Your task to perform on an android device: Go to Google Image 0: 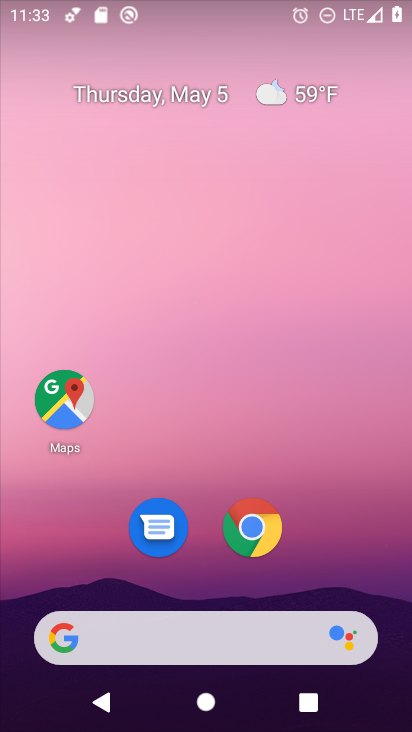
Step 0: drag from (271, 699) to (216, 12)
Your task to perform on an android device: Go to Google Image 1: 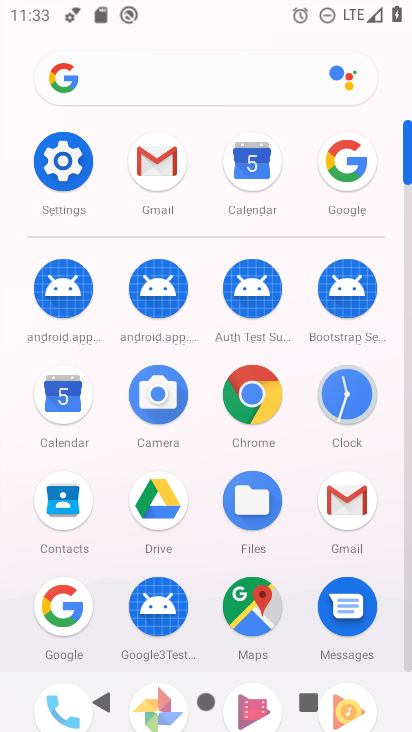
Step 1: click (65, 612)
Your task to perform on an android device: Go to Google Image 2: 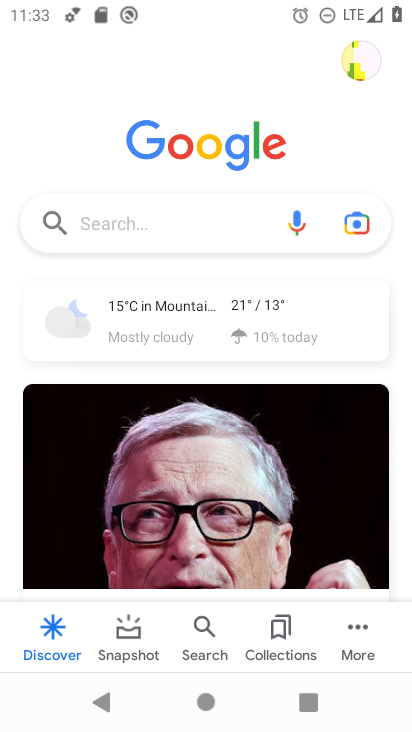
Step 2: task complete